Your task to perform on an android device: Do I have any events this weekend? Image 0: 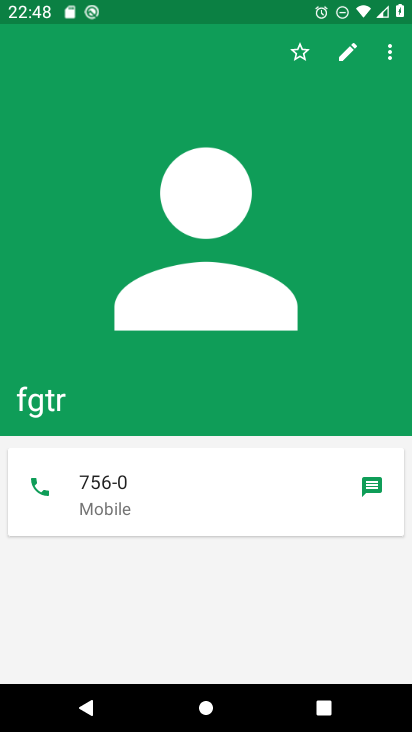
Step 0: press home button
Your task to perform on an android device: Do I have any events this weekend? Image 1: 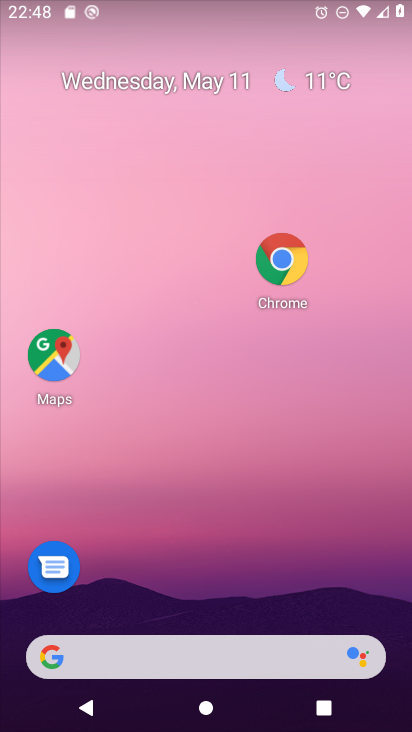
Step 1: drag from (160, 629) to (309, 148)
Your task to perform on an android device: Do I have any events this weekend? Image 2: 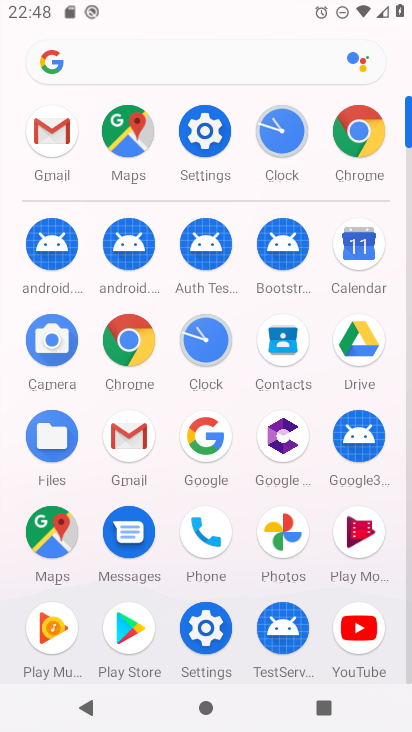
Step 2: click (349, 257)
Your task to perform on an android device: Do I have any events this weekend? Image 3: 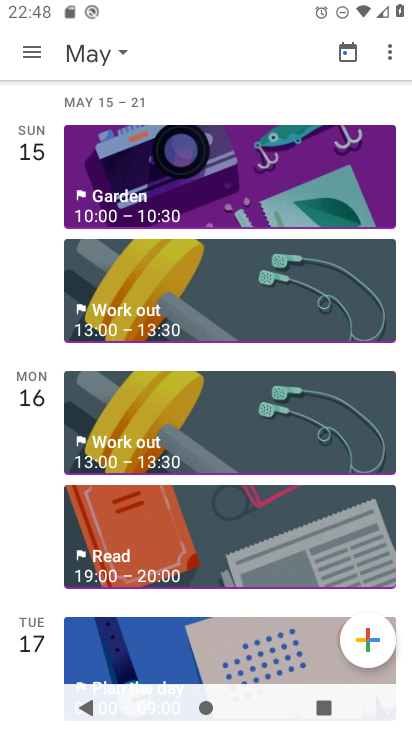
Step 3: click (74, 57)
Your task to perform on an android device: Do I have any events this weekend? Image 4: 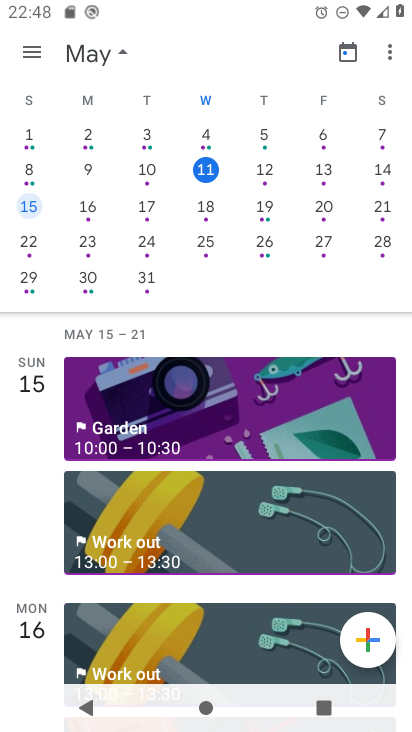
Step 4: click (381, 172)
Your task to perform on an android device: Do I have any events this weekend? Image 5: 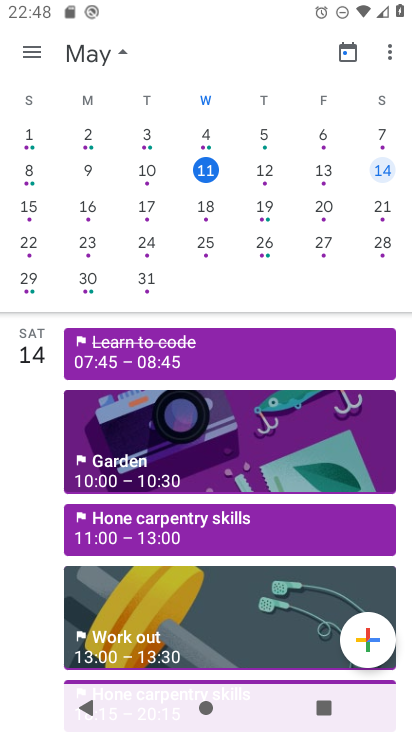
Step 5: click (30, 52)
Your task to perform on an android device: Do I have any events this weekend? Image 6: 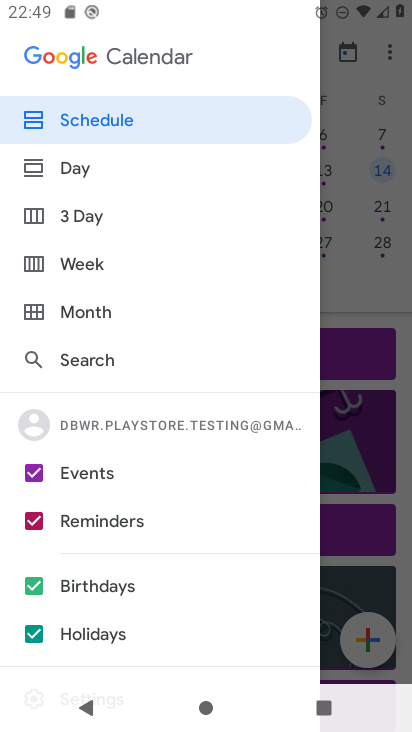
Step 6: click (122, 122)
Your task to perform on an android device: Do I have any events this weekend? Image 7: 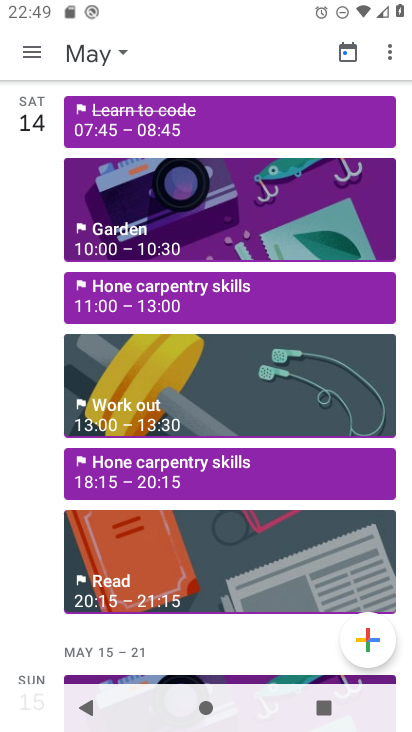
Step 7: task complete